Your task to perform on an android device: Open the Play Movies app and select the watchlist tab. Image 0: 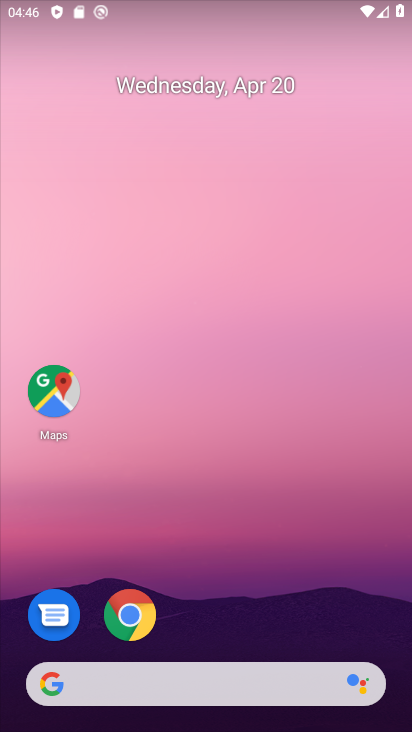
Step 0: drag from (252, 604) to (248, 0)
Your task to perform on an android device: Open the Play Movies app and select the watchlist tab. Image 1: 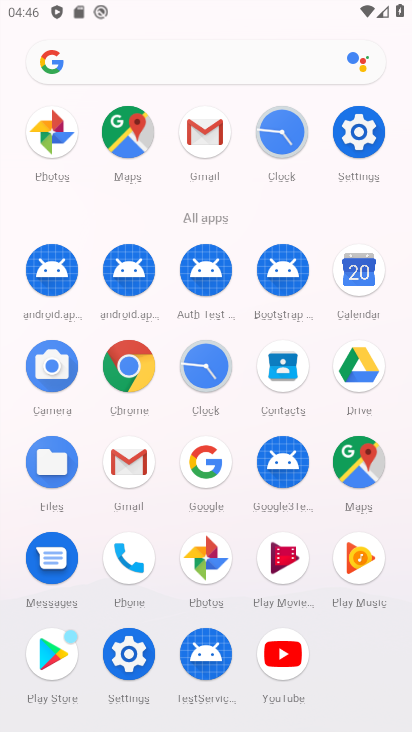
Step 1: click (292, 556)
Your task to perform on an android device: Open the Play Movies app and select the watchlist tab. Image 2: 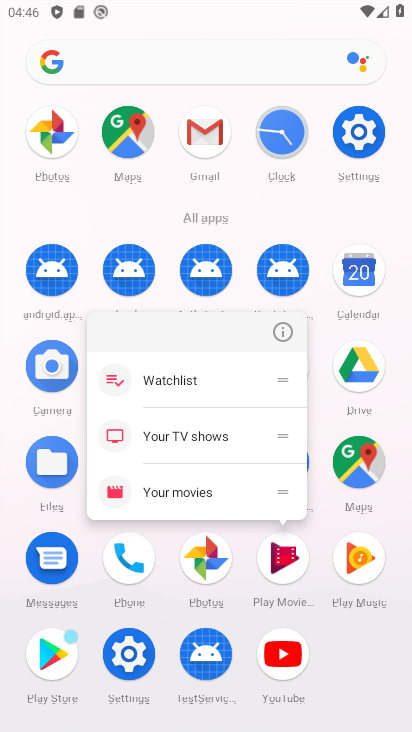
Step 2: click (292, 556)
Your task to perform on an android device: Open the Play Movies app and select the watchlist tab. Image 3: 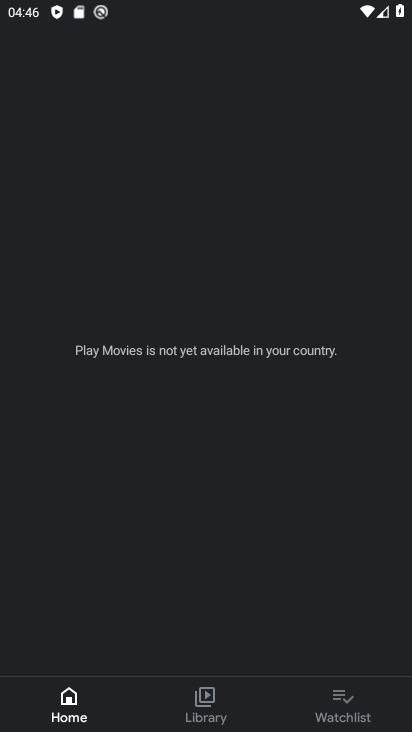
Step 3: click (342, 689)
Your task to perform on an android device: Open the Play Movies app and select the watchlist tab. Image 4: 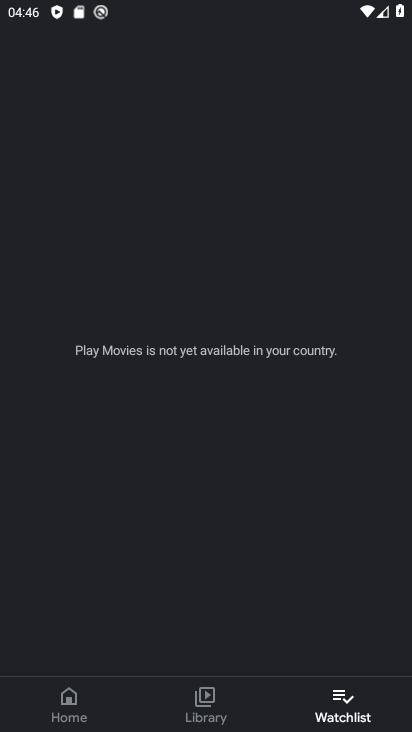
Step 4: task complete